Your task to perform on an android device: Go to notification settings Image 0: 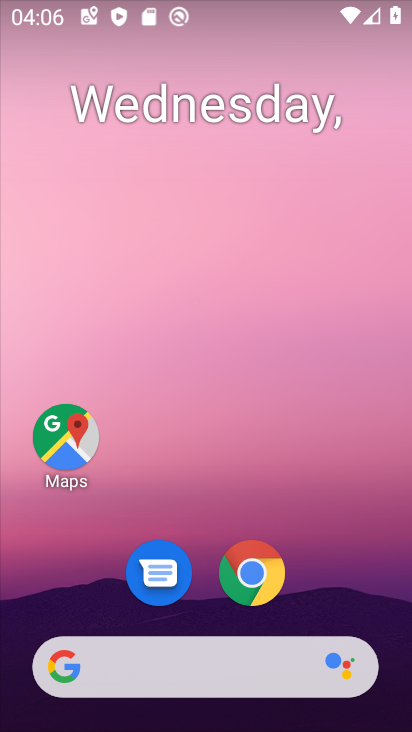
Step 0: drag from (313, 585) to (369, 75)
Your task to perform on an android device: Go to notification settings Image 1: 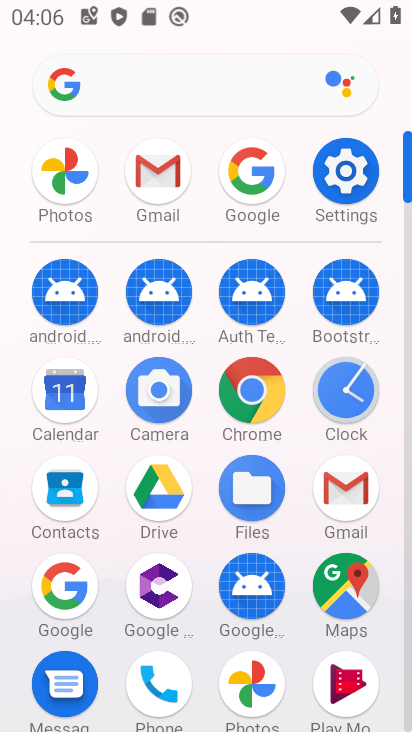
Step 1: click (344, 170)
Your task to perform on an android device: Go to notification settings Image 2: 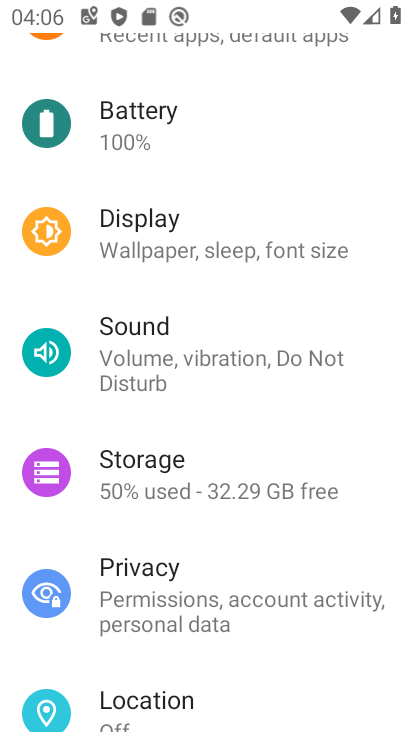
Step 2: drag from (248, 313) to (263, 462)
Your task to perform on an android device: Go to notification settings Image 3: 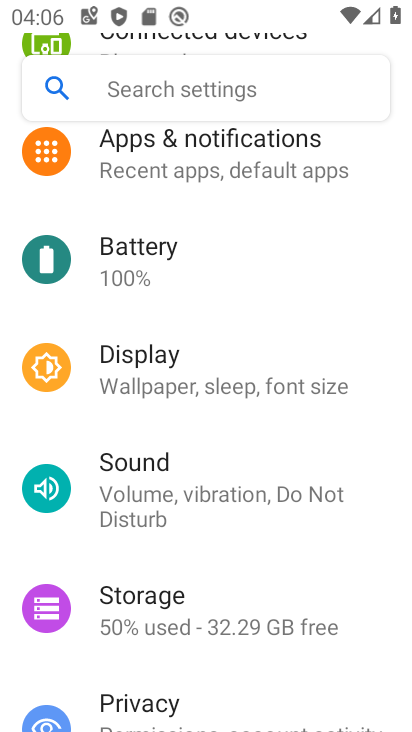
Step 3: drag from (258, 242) to (272, 413)
Your task to perform on an android device: Go to notification settings Image 4: 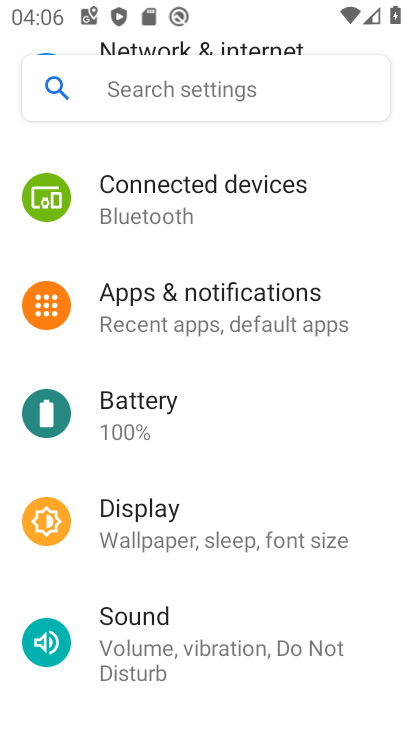
Step 4: click (227, 298)
Your task to perform on an android device: Go to notification settings Image 5: 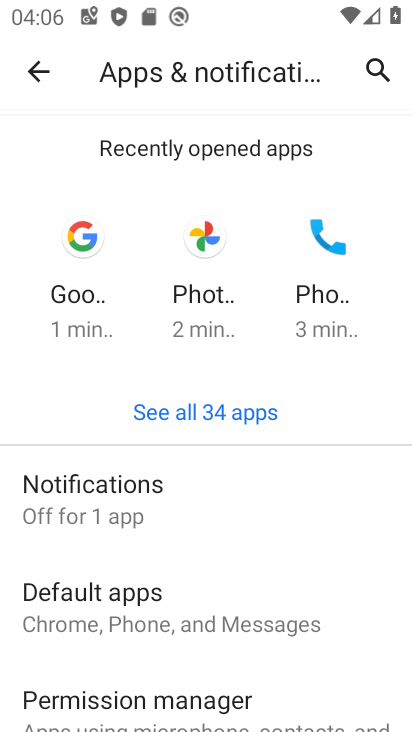
Step 5: click (117, 481)
Your task to perform on an android device: Go to notification settings Image 6: 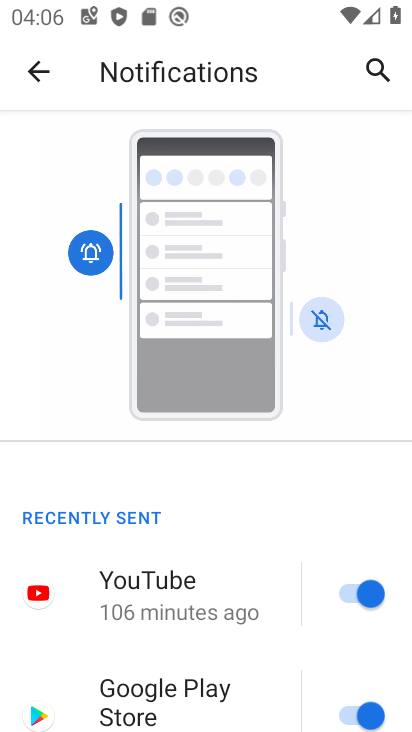
Step 6: task complete